Your task to perform on an android device: Open Wikipedia Image 0: 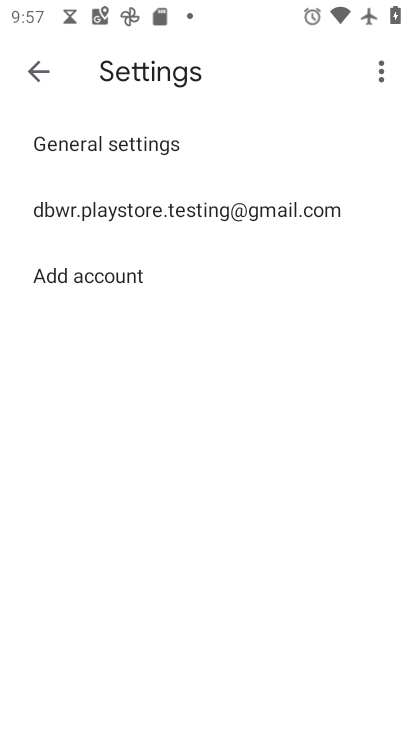
Step 0: press home button
Your task to perform on an android device: Open Wikipedia Image 1: 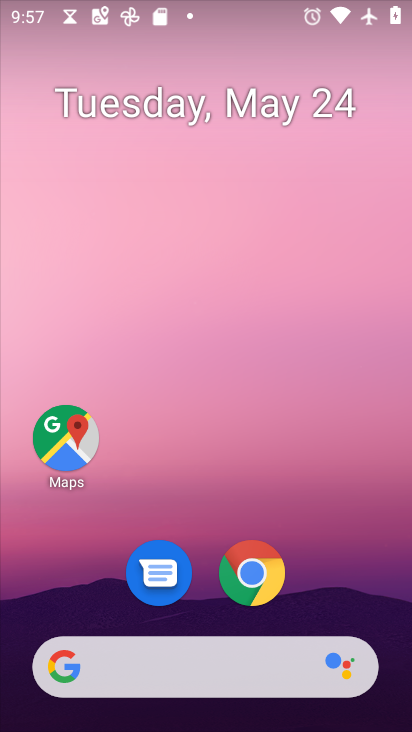
Step 1: drag from (356, 592) to (314, 22)
Your task to perform on an android device: Open Wikipedia Image 2: 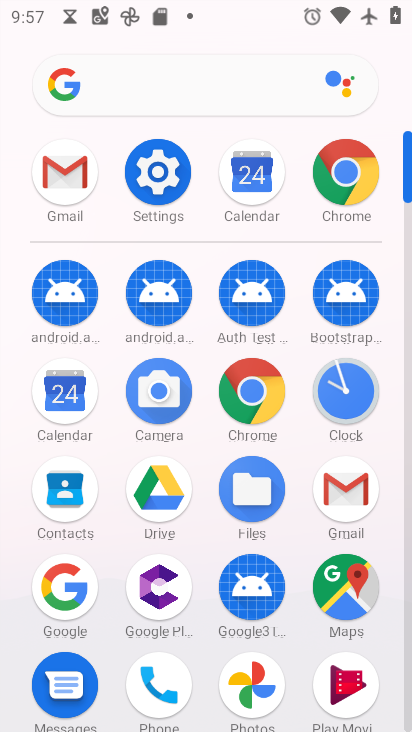
Step 2: click (336, 174)
Your task to perform on an android device: Open Wikipedia Image 3: 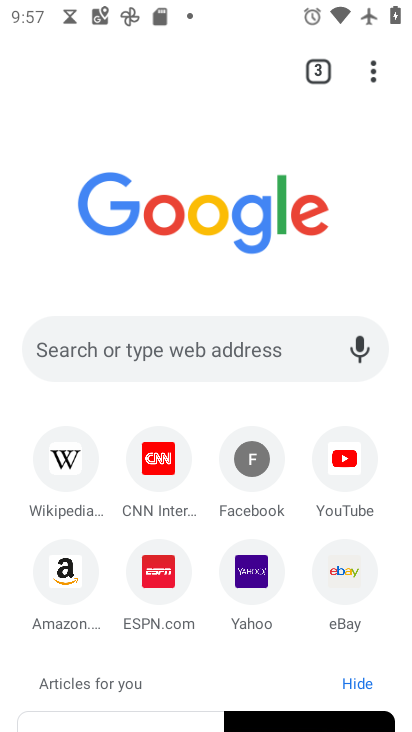
Step 3: drag from (375, 627) to (350, 267)
Your task to perform on an android device: Open Wikipedia Image 4: 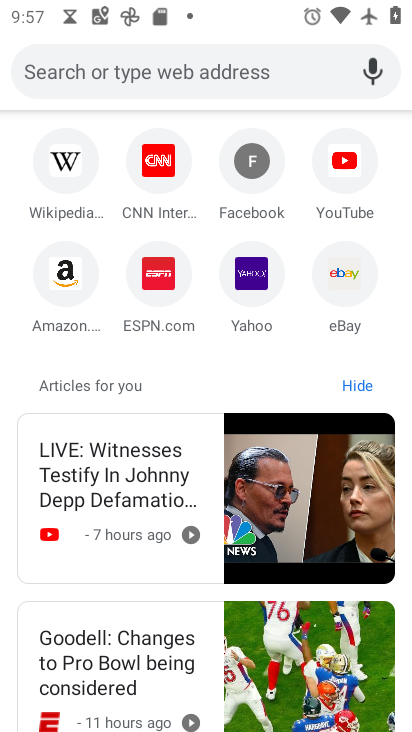
Step 4: click (56, 190)
Your task to perform on an android device: Open Wikipedia Image 5: 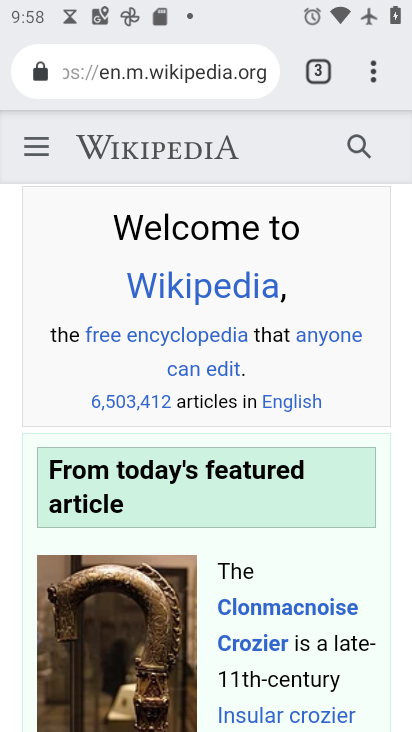
Step 5: task complete